Your task to perform on an android device: What's the weather going to be this weekend? Image 0: 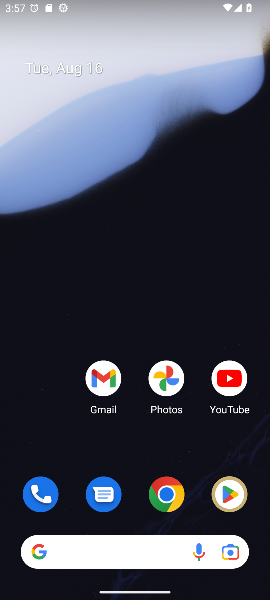
Step 0: drag from (126, 530) to (193, 12)
Your task to perform on an android device: What's the weather going to be this weekend? Image 1: 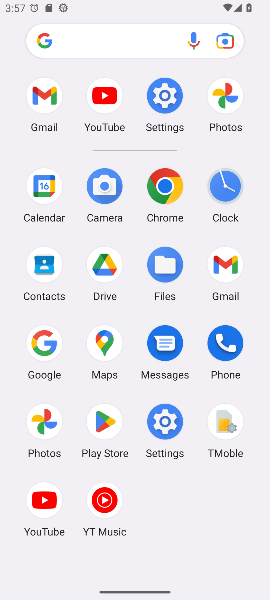
Step 1: click (48, 346)
Your task to perform on an android device: What's the weather going to be this weekend? Image 2: 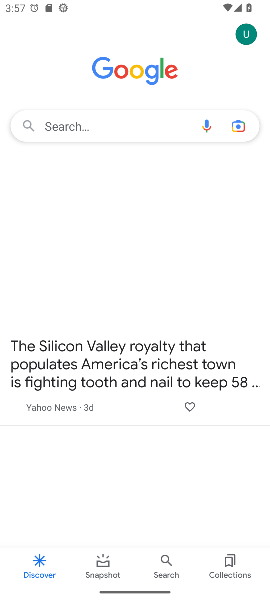
Step 2: click (147, 127)
Your task to perform on an android device: What's the weather going to be this weekend? Image 3: 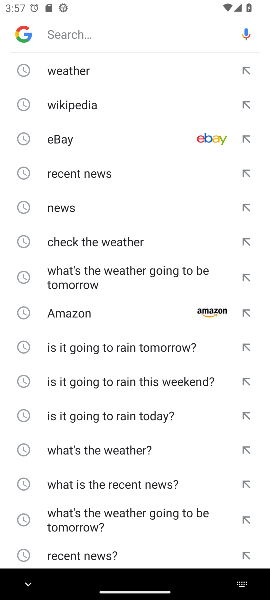
Step 3: type "weather"
Your task to perform on an android device: What's the weather going to be this weekend? Image 4: 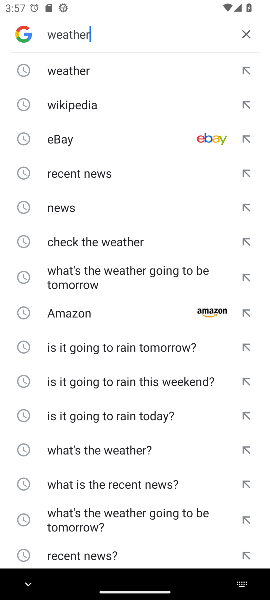
Step 4: type ""
Your task to perform on an android device: What's the weather going to be this weekend? Image 5: 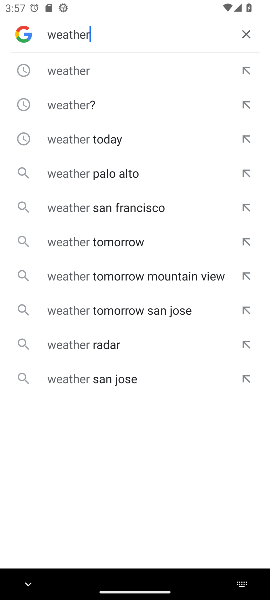
Step 5: click (60, 63)
Your task to perform on an android device: What's the weather going to be this weekend? Image 6: 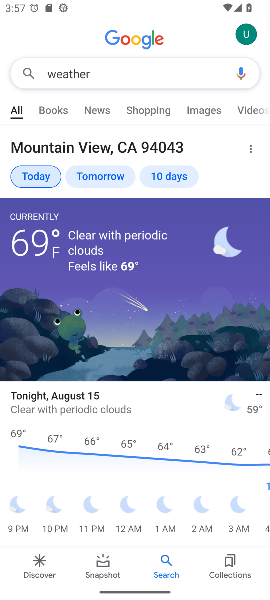
Step 6: click (96, 175)
Your task to perform on an android device: What's the weather going to be this weekend? Image 7: 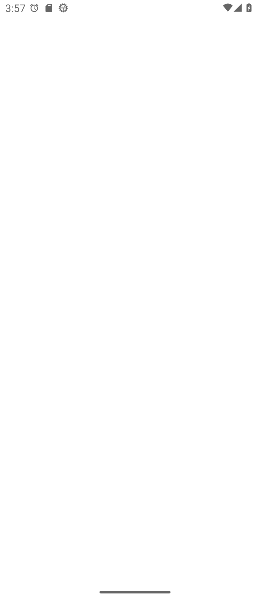
Step 7: click (173, 178)
Your task to perform on an android device: What's the weather going to be this weekend? Image 8: 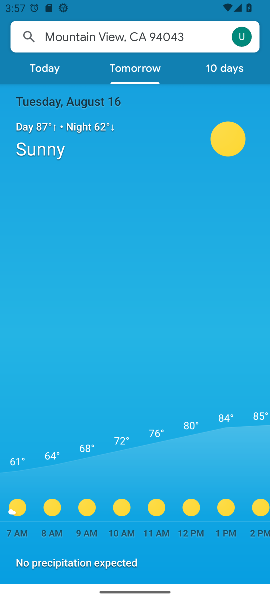
Step 8: click (213, 74)
Your task to perform on an android device: What's the weather going to be this weekend? Image 9: 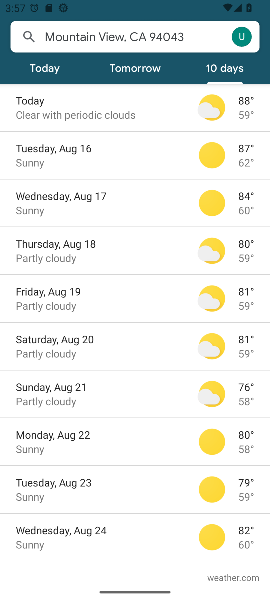
Step 9: task complete